Your task to perform on an android device: When is my next meeting? Image 0: 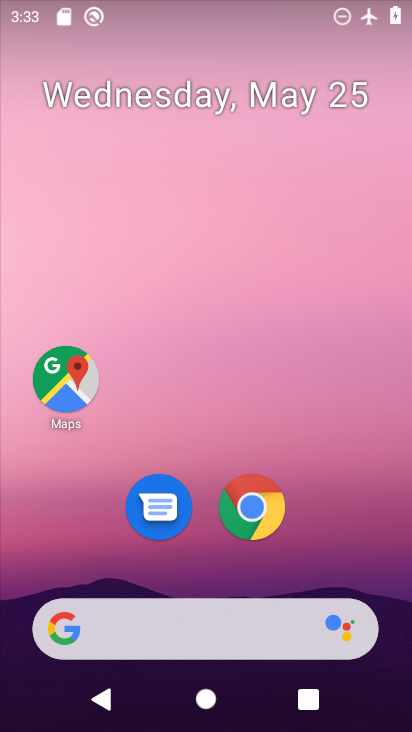
Step 0: drag from (254, 616) to (374, 130)
Your task to perform on an android device: When is my next meeting? Image 1: 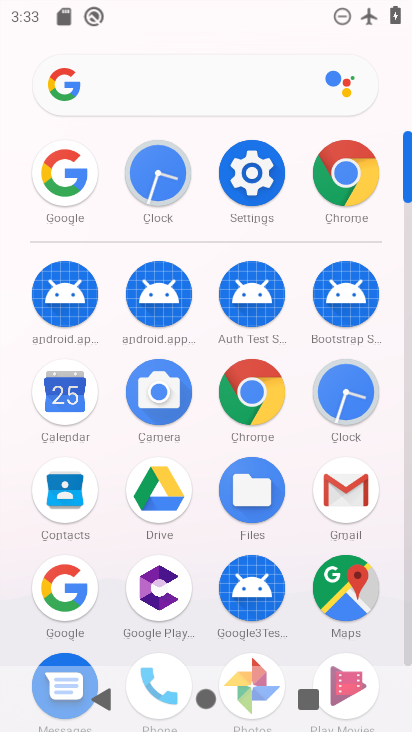
Step 1: click (82, 402)
Your task to perform on an android device: When is my next meeting? Image 2: 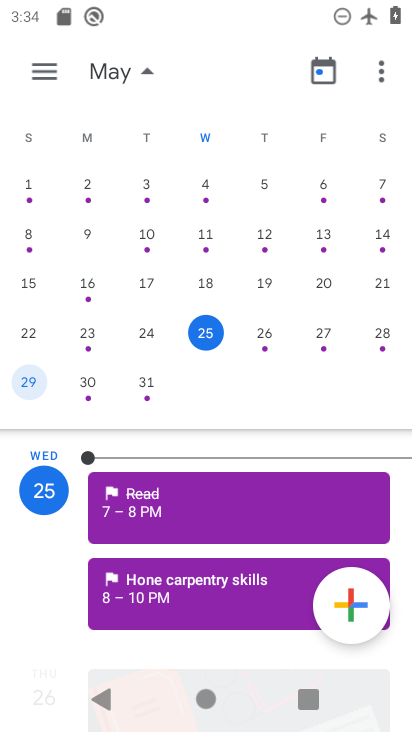
Step 2: click (55, 50)
Your task to perform on an android device: When is my next meeting? Image 3: 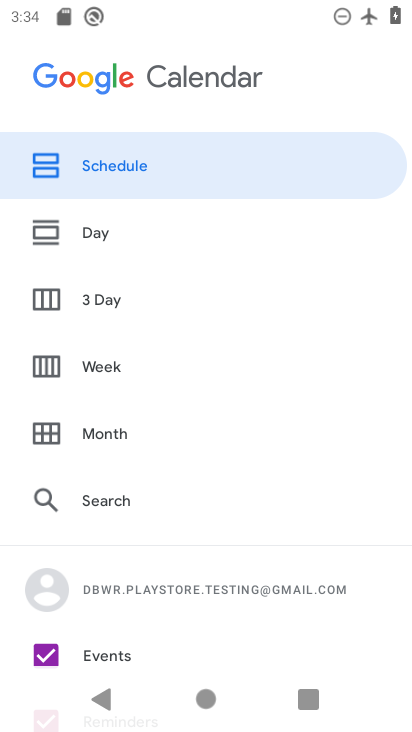
Step 3: task complete